Your task to perform on an android device: Open calendar and show me the third week of next month Image 0: 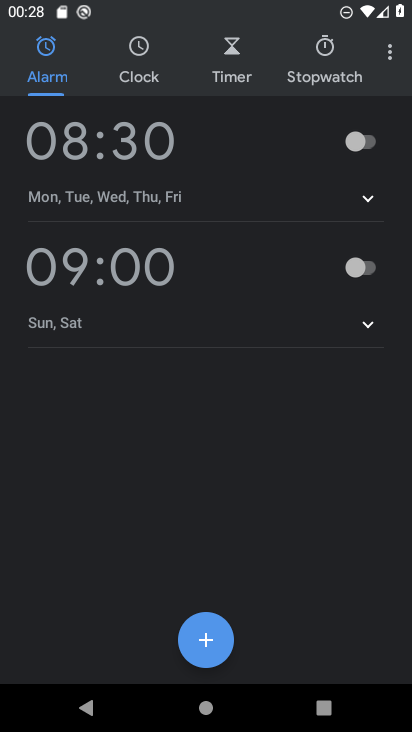
Step 0: press home button
Your task to perform on an android device: Open calendar and show me the third week of next month Image 1: 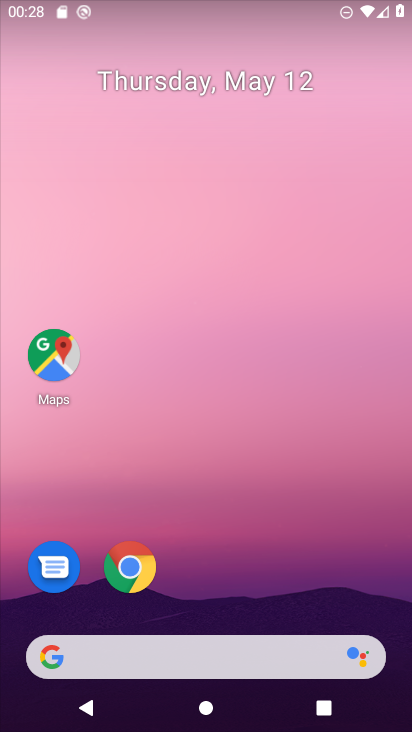
Step 1: drag from (294, 608) to (247, 198)
Your task to perform on an android device: Open calendar and show me the third week of next month Image 2: 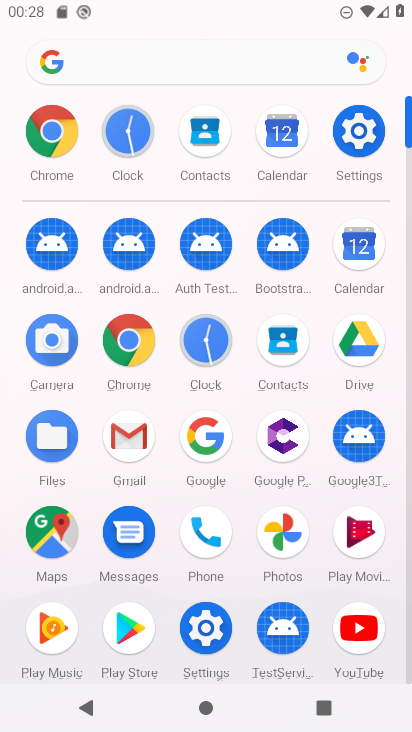
Step 2: click (349, 262)
Your task to perform on an android device: Open calendar and show me the third week of next month Image 3: 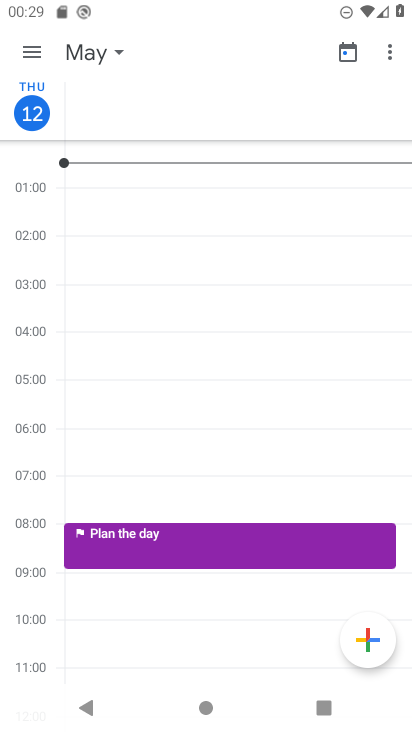
Step 3: click (88, 62)
Your task to perform on an android device: Open calendar and show me the third week of next month Image 4: 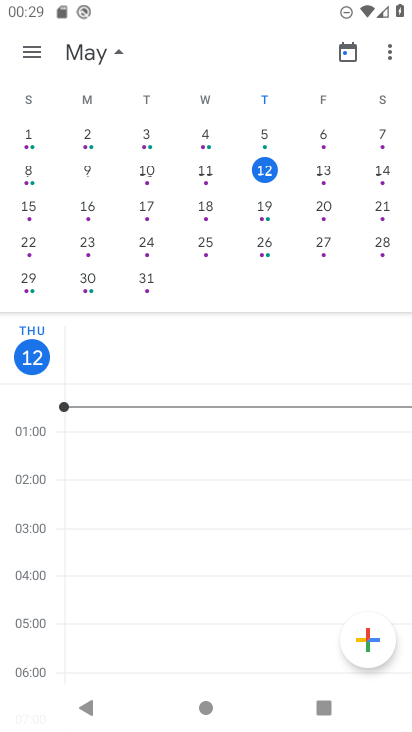
Step 4: drag from (349, 176) to (9, 357)
Your task to perform on an android device: Open calendar and show me the third week of next month Image 5: 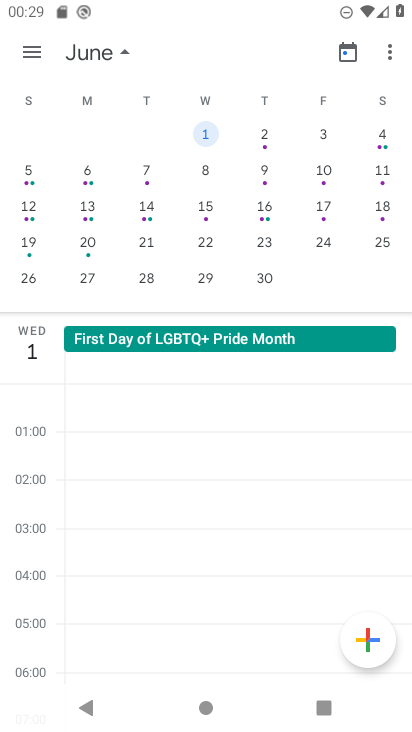
Step 5: click (22, 204)
Your task to perform on an android device: Open calendar and show me the third week of next month Image 6: 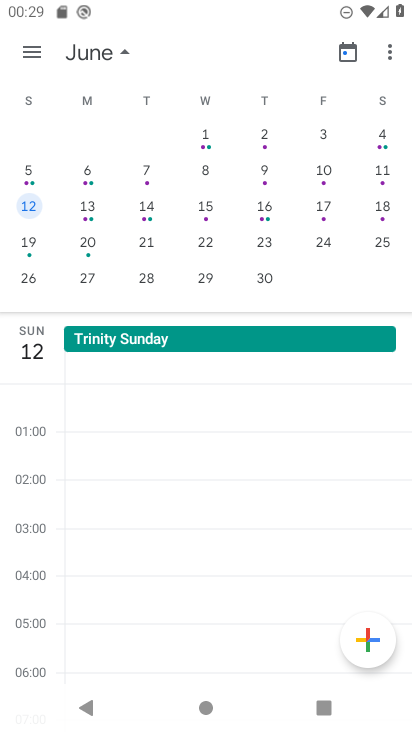
Step 6: task complete